Your task to perform on an android device: Go to Amazon Image 0: 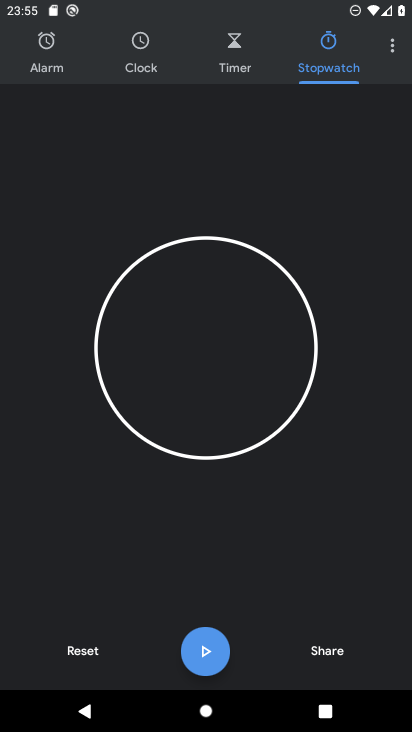
Step 0: press home button
Your task to perform on an android device: Go to Amazon Image 1: 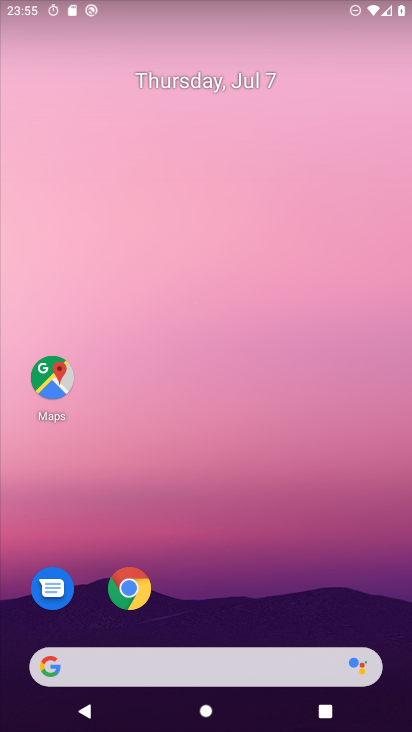
Step 1: drag from (296, 574) to (296, 1)
Your task to perform on an android device: Go to Amazon Image 2: 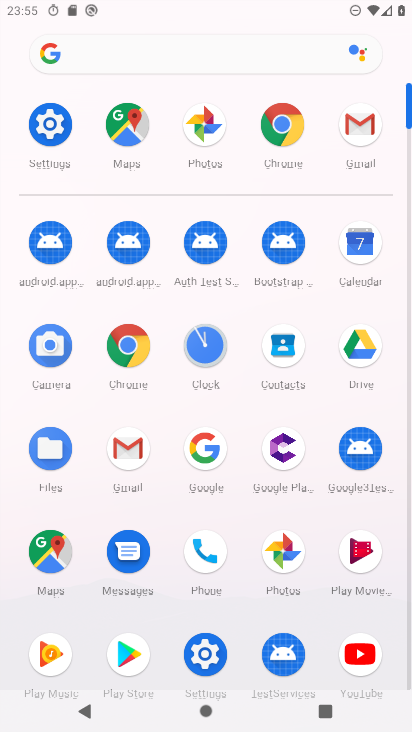
Step 2: click (286, 124)
Your task to perform on an android device: Go to Amazon Image 3: 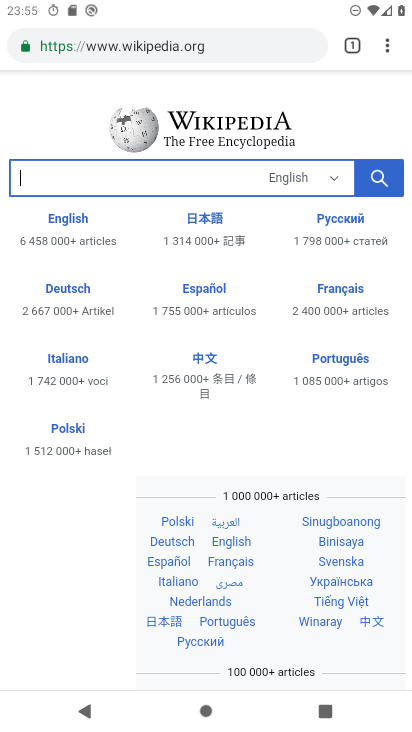
Step 3: click (217, 47)
Your task to perform on an android device: Go to Amazon Image 4: 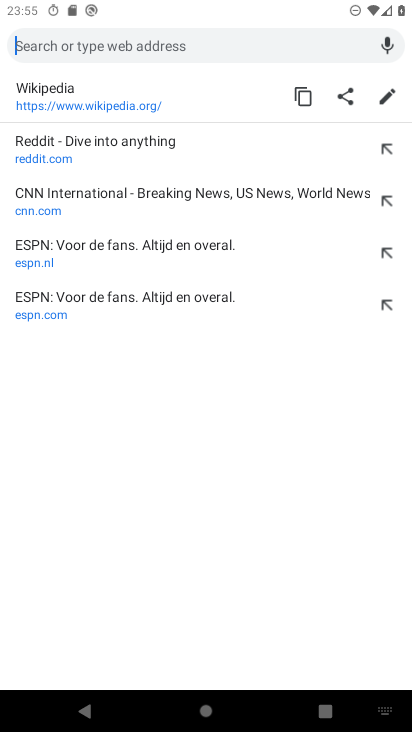
Step 4: type "Amazon"
Your task to perform on an android device: Go to Amazon Image 5: 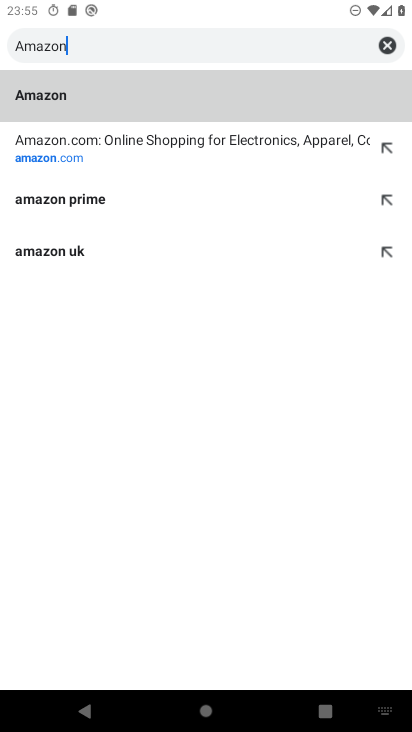
Step 5: press enter
Your task to perform on an android device: Go to Amazon Image 6: 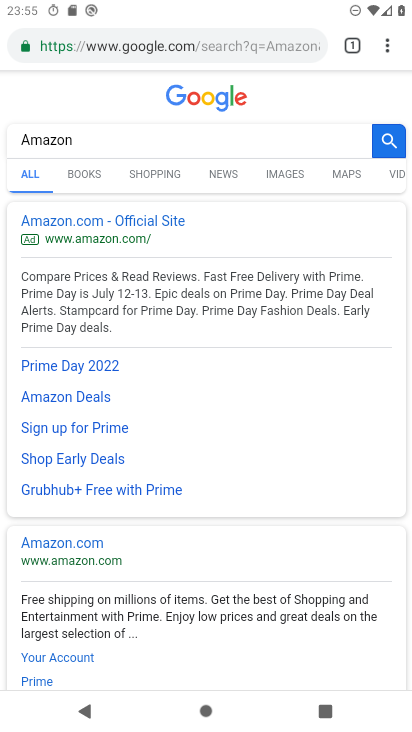
Step 6: click (43, 538)
Your task to perform on an android device: Go to Amazon Image 7: 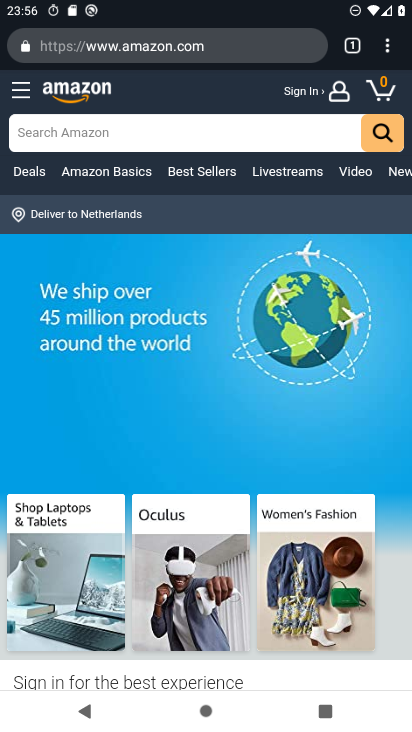
Step 7: task complete